Your task to perform on an android device: Open Google Maps and go to "Timeline" Image 0: 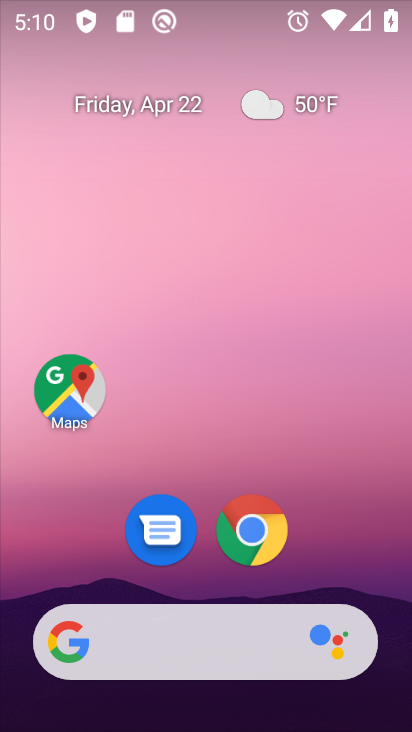
Step 0: drag from (306, 538) to (304, 194)
Your task to perform on an android device: Open Google Maps and go to "Timeline" Image 1: 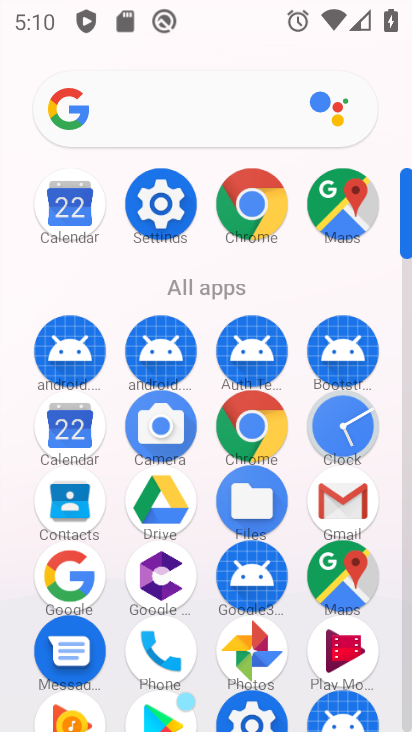
Step 1: click (351, 566)
Your task to perform on an android device: Open Google Maps and go to "Timeline" Image 2: 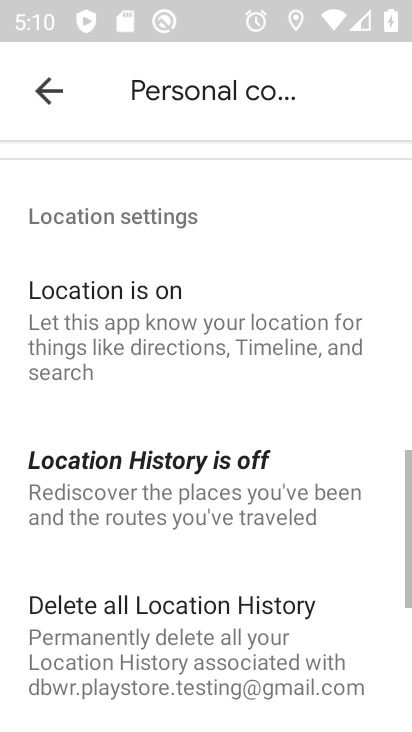
Step 2: click (43, 107)
Your task to perform on an android device: Open Google Maps and go to "Timeline" Image 3: 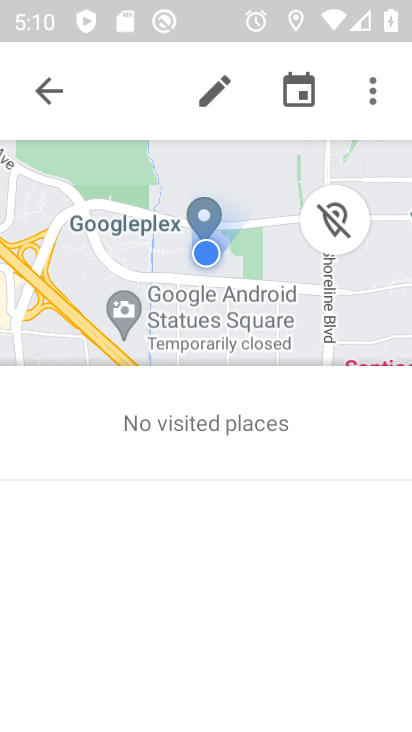
Step 3: task complete